Your task to perform on an android device: Open Google Chrome Image 0: 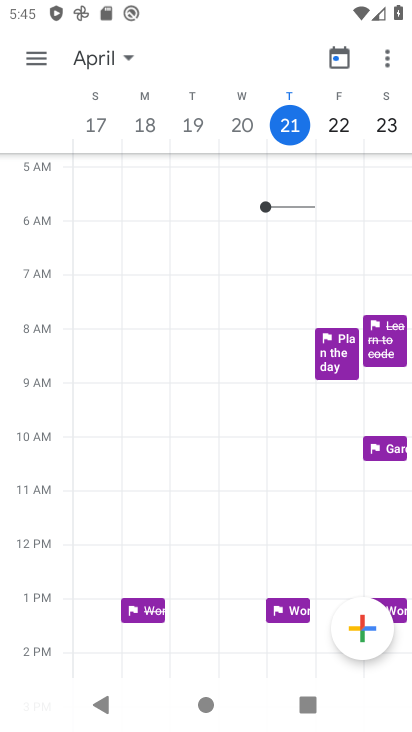
Step 0: press home button
Your task to perform on an android device: Open Google Chrome Image 1: 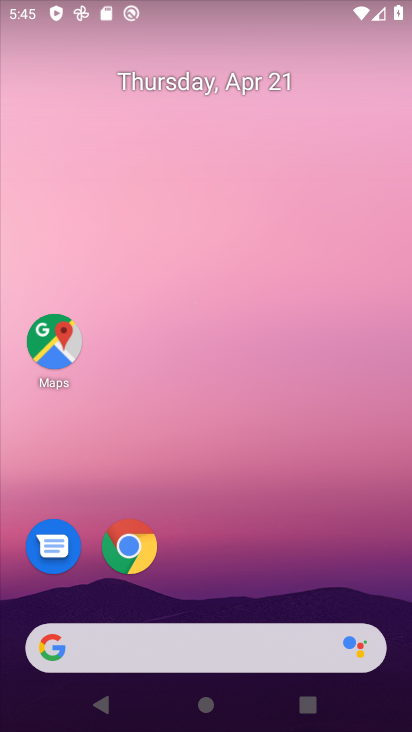
Step 1: click (135, 546)
Your task to perform on an android device: Open Google Chrome Image 2: 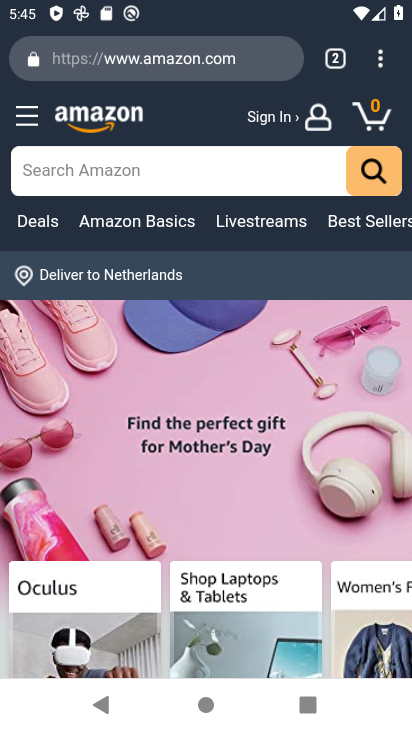
Step 2: task complete